Your task to perform on an android device: turn off data saver in the chrome app Image 0: 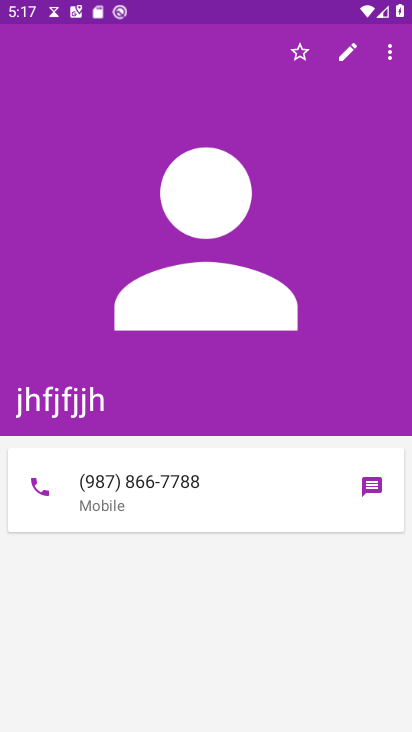
Step 0: press home button
Your task to perform on an android device: turn off data saver in the chrome app Image 1: 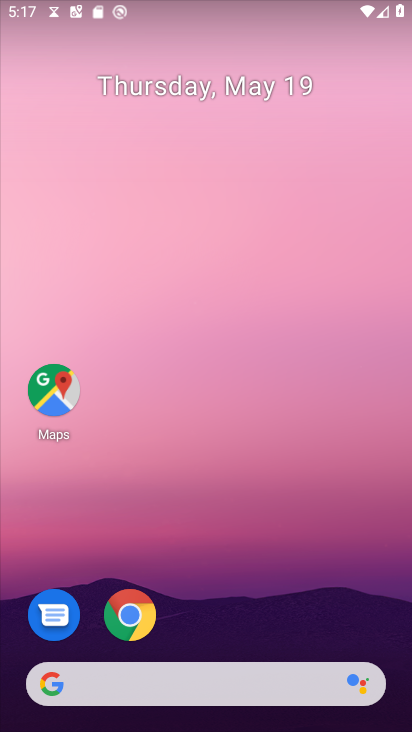
Step 1: drag from (282, 685) to (308, 96)
Your task to perform on an android device: turn off data saver in the chrome app Image 2: 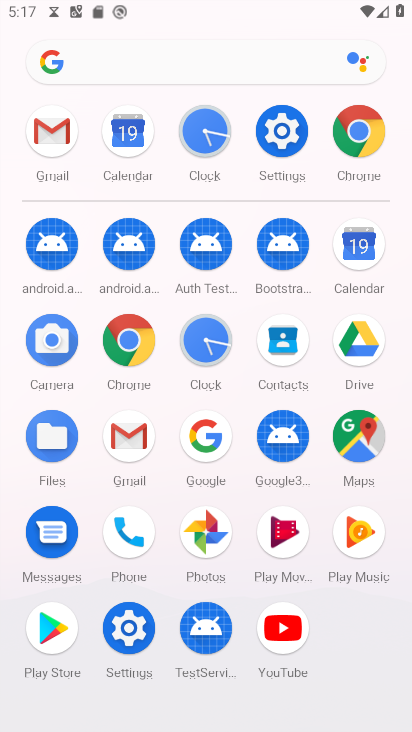
Step 2: click (121, 332)
Your task to perform on an android device: turn off data saver in the chrome app Image 3: 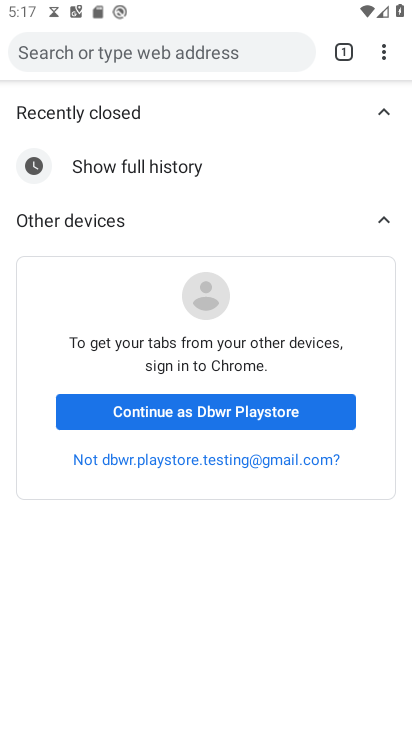
Step 3: click (385, 55)
Your task to perform on an android device: turn off data saver in the chrome app Image 4: 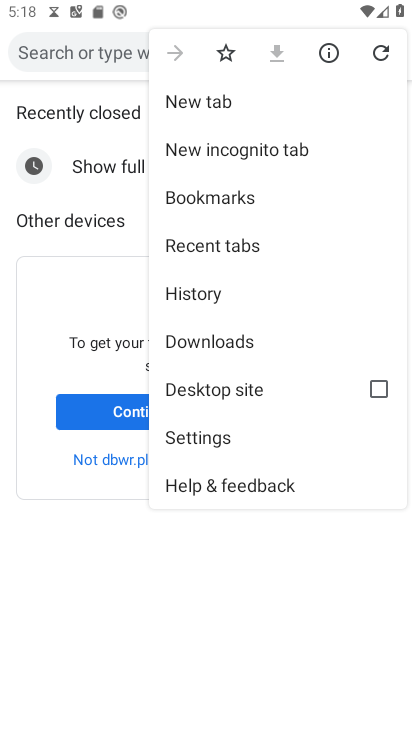
Step 4: click (214, 437)
Your task to perform on an android device: turn off data saver in the chrome app Image 5: 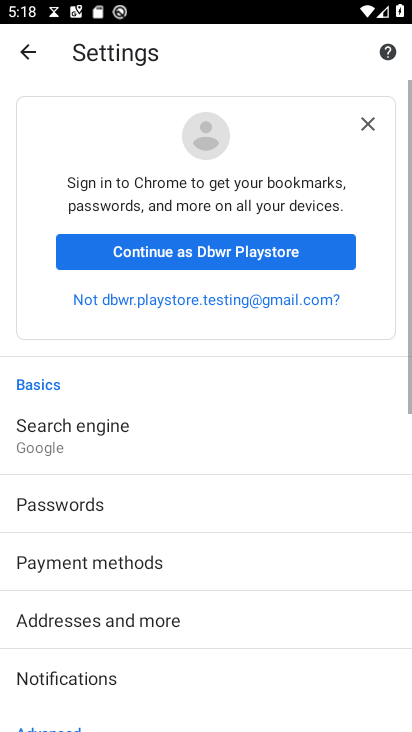
Step 5: drag from (252, 637) to (239, 96)
Your task to perform on an android device: turn off data saver in the chrome app Image 6: 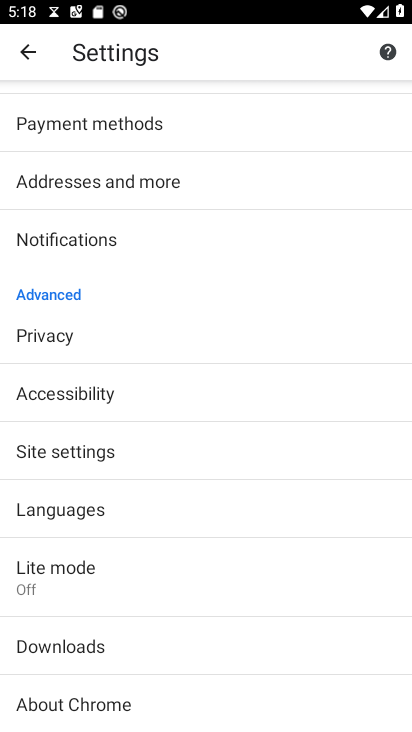
Step 6: click (110, 549)
Your task to perform on an android device: turn off data saver in the chrome app Image 7: 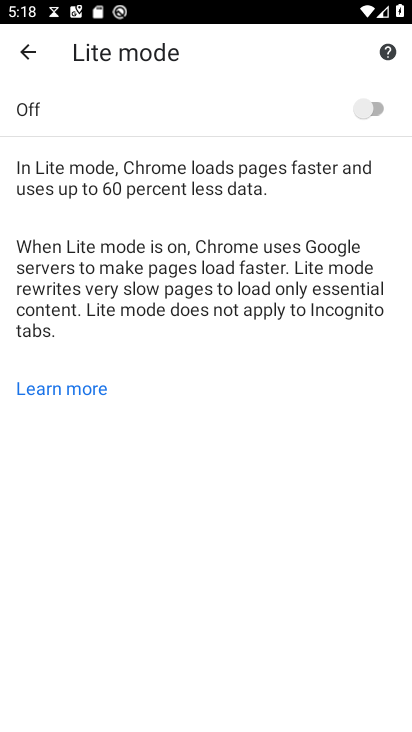
Step 7: task complete